Your task to perform on an android device: turn off notifications settings in the gmail app Image 0: 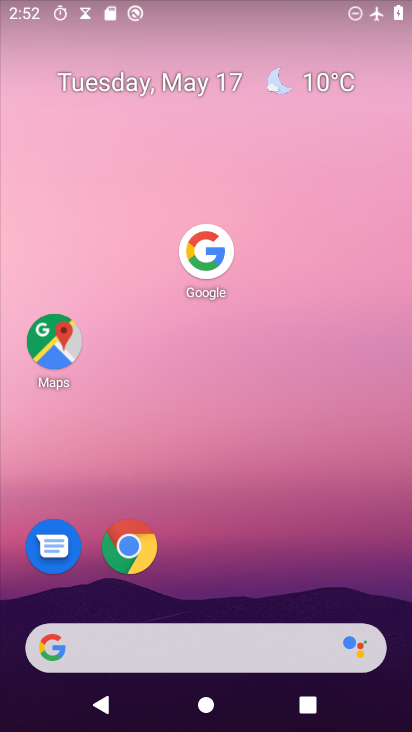
Step 0: drag from (136, 643) to (299, 139)
Your task to perform on an android device: turn off notifications settings in the gmail app Image 1: 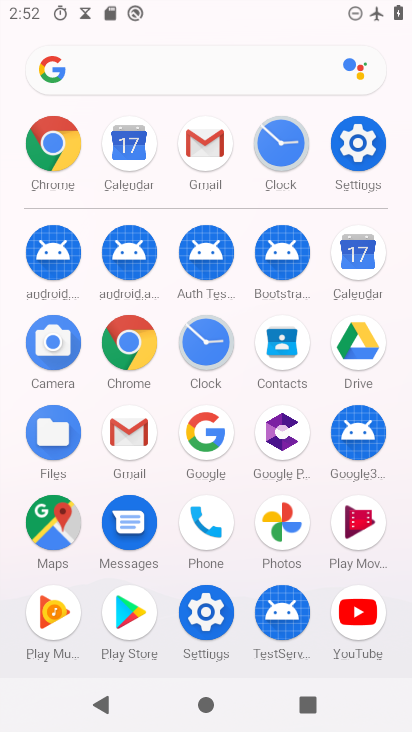
Step 1: click (123, 445)
Your task to perform on an android device: turn off notifications settings in the gmail app Image 2: 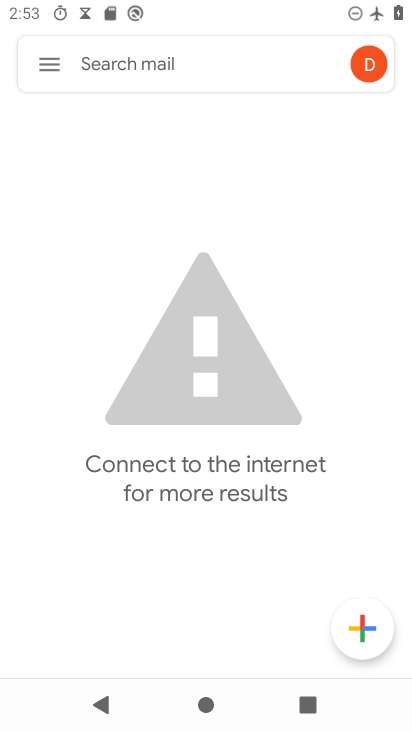
Step 2: click (53, 71)
Your task to perform on an android device: turn off notifications settings in the gmail app Image 3: 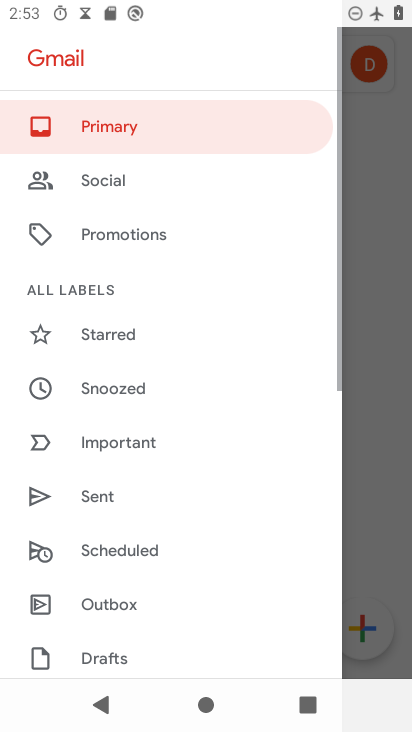
Step 3: drag from (144, 616) to (263, 90)
Your task to perform on an android device: turn off notifications settings in the gmail app Image 4: 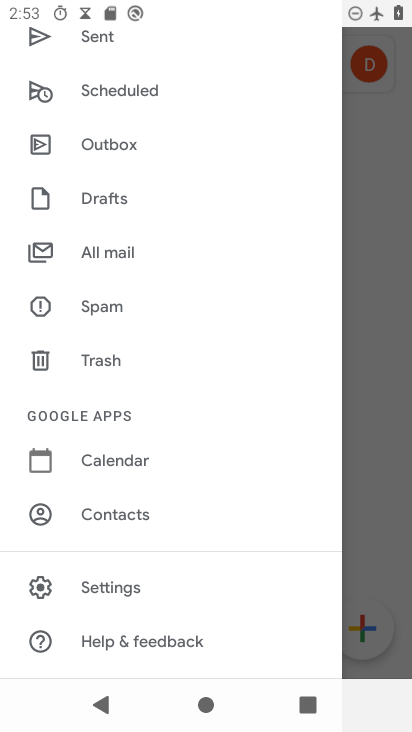
Step 4: click (131, 582)
Your task to perform on an android device: turn off notifications settings in the gmail app Image 5: 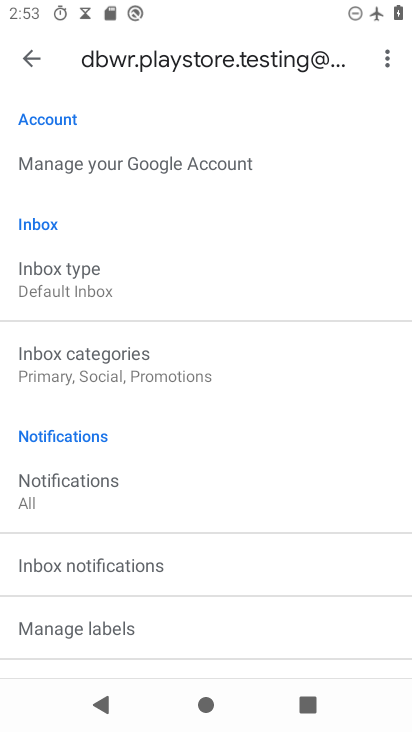
Step 5: click (85, 503)
Your task to perform on an android device: turn off notifications settings in the gmail app Image 6: 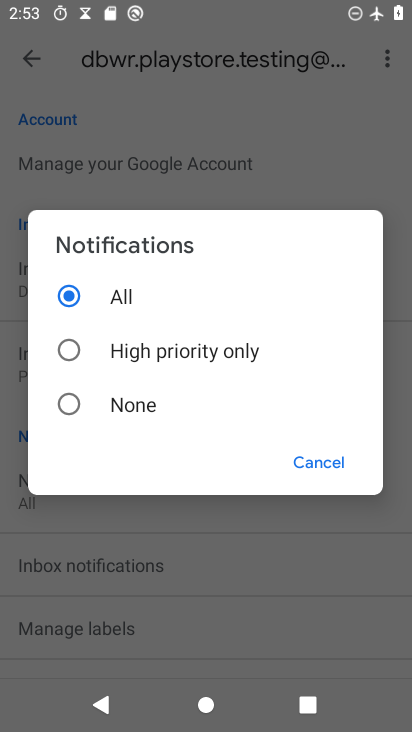
Step 6: click (72, 399)
Your task to perform on an android device: turn off notifications settings in the gmail app Image 7: 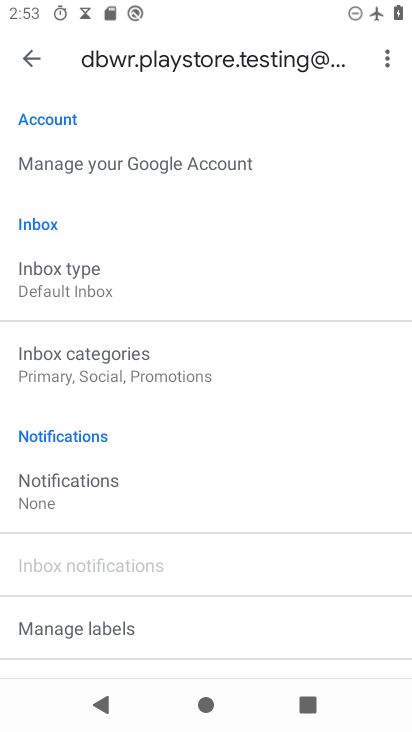
Step 7: task complete